Your task to perform on an android device: check data usage Image 0: 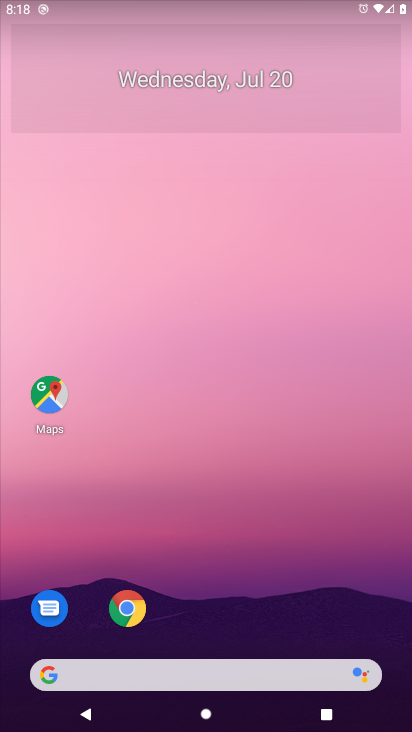
Step 0: drag from (238, 609) to (199, 2)
Your task to perform on an android device: check data usage Image 1: 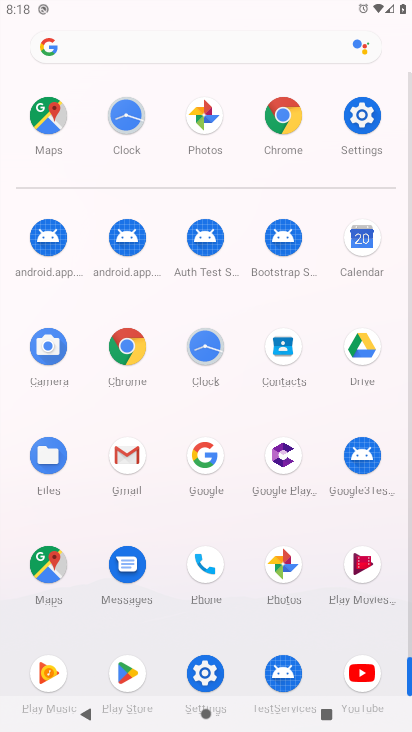
Step 1: click (200, 664)
Your task to perform on an android device: check data usage Image 2: 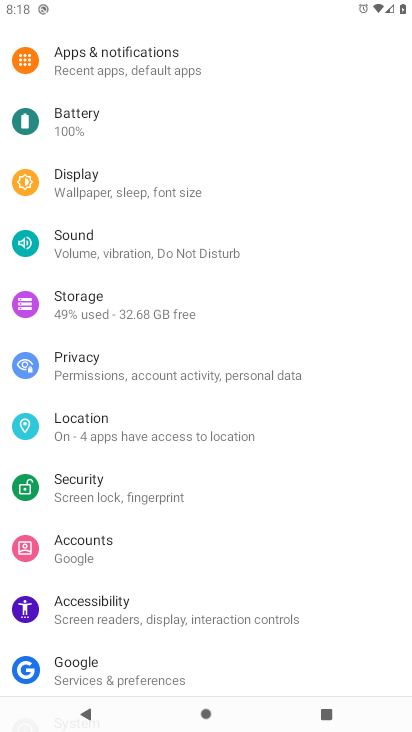
Step 2: drag from (146, 162) to (164, 512)
Your task to perform on an android device: check data usage Image 3: 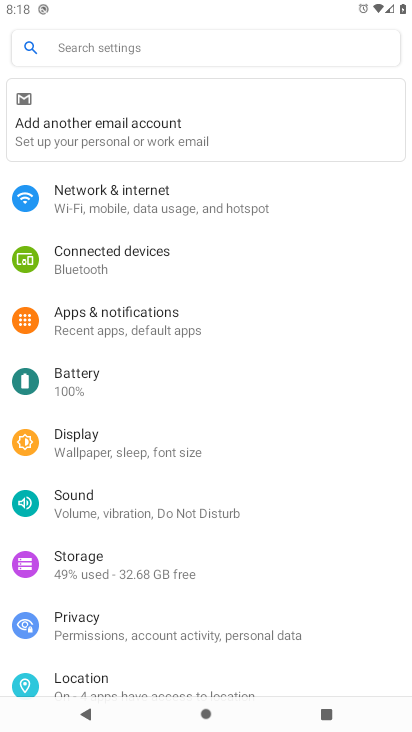
Step 3: click (144, 201)
Your task to perform on an android device: check data usage Image 4: 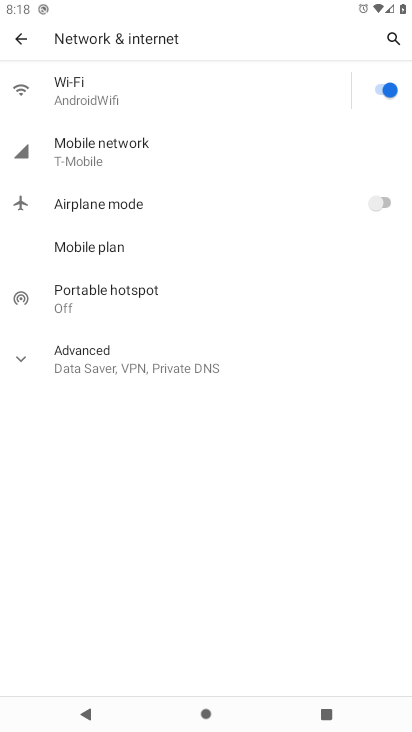
Step 4: click (111, 146)
Your task to perform on an android device: check data usage Image 5: 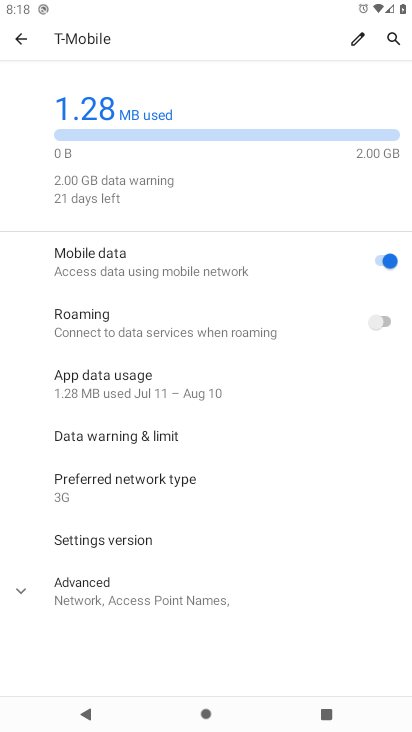
Step 5: click (132, 389)
Your task to perform on an android device: check data usage Image 6: 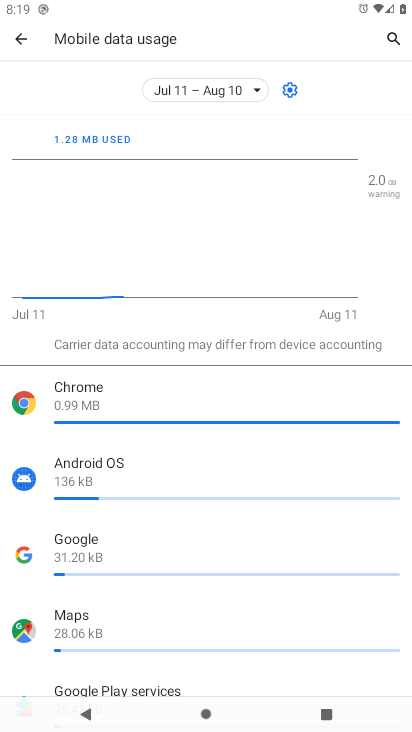
Step 6: task complete